Your task to perform on an android device: open device folders in google photos Image 0: 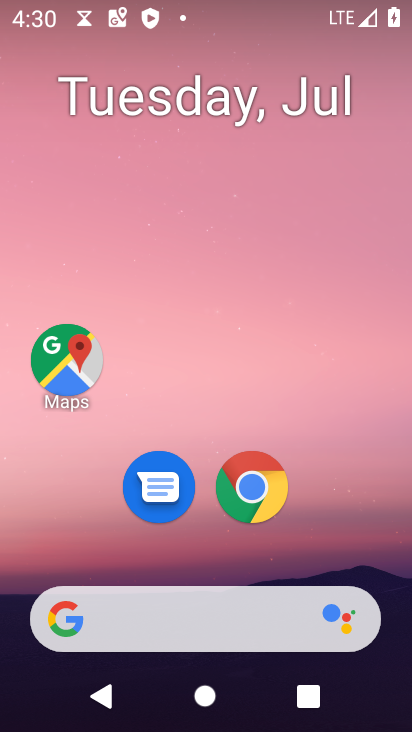
Step 0: drag from (155, 512) to (288, 8)
Your task to perform on an android device: open device folders in google photos Image 1: 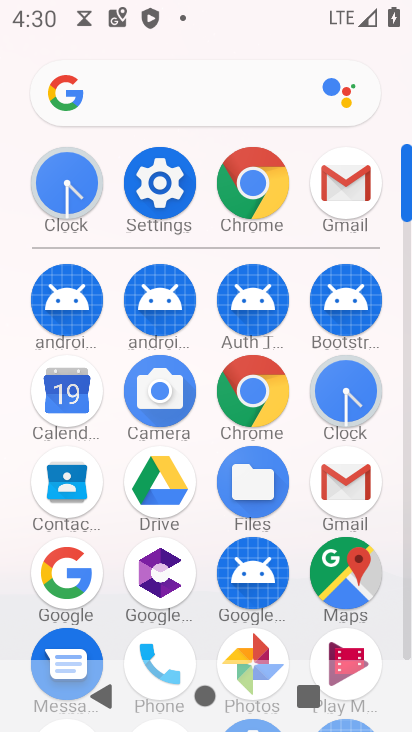
Step 1: click (252, 641)
Your task to perform on an android device: open device folders in google photos Image 2: 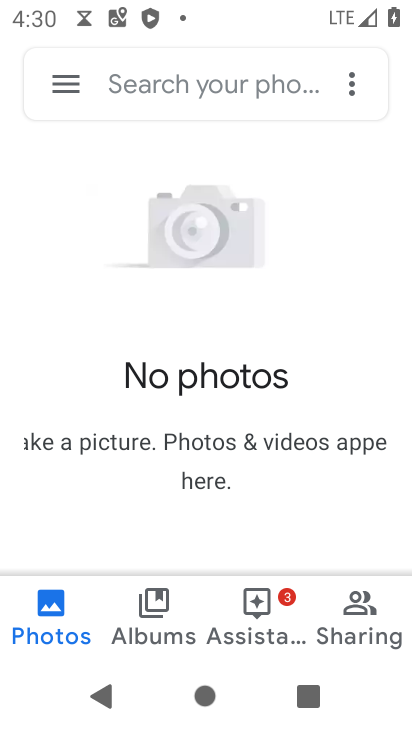
Step 2: click (59, 68)
Your task to perform on an android device: open device folders in google photos Image 3: 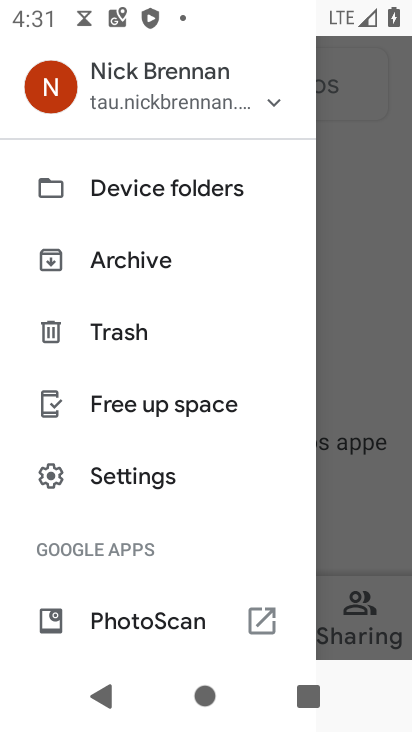
Step 3: click (141, 169)
Your task to perform on an android device: open device folders in google photos Image 4: 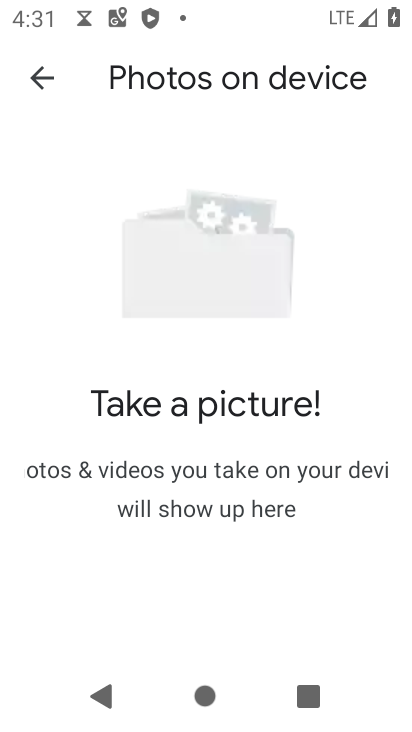
Step 4: task complete